Your task to perform on an android device: turn pop-ups on in chrome Image 0: 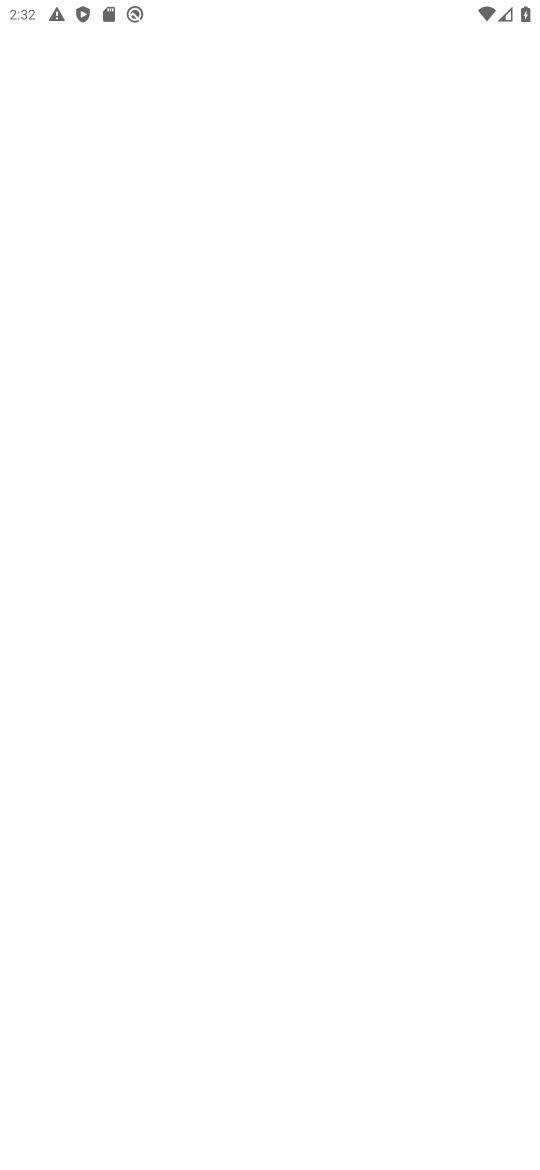
Step 0: press back button
Your task to perform on an android device: turn pop-ups on in chrome Image 1: 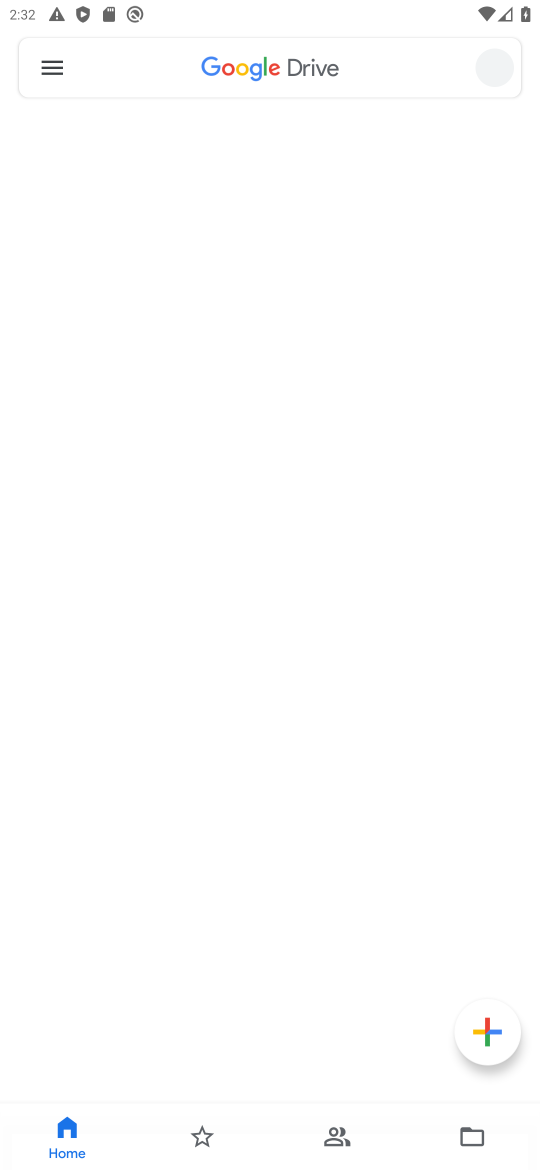
Step 1: press home button
Your task to perform on an android device: turn pop-ups on in chrome Image 2: 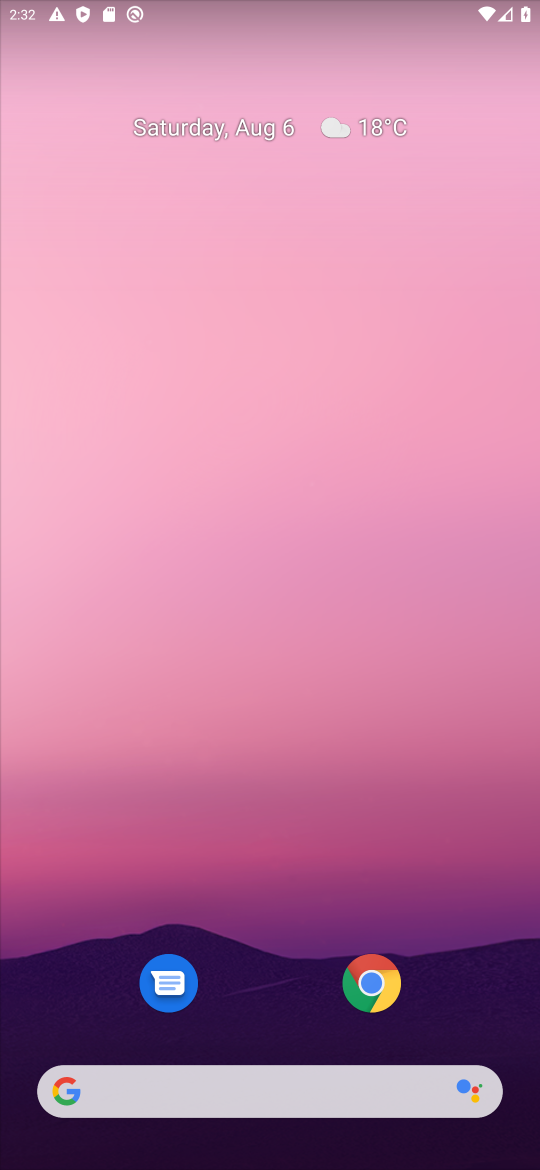
Step 2: click (379, 999)
Your task to perform on an android device: turn pop-ups on in chrome Image 3: 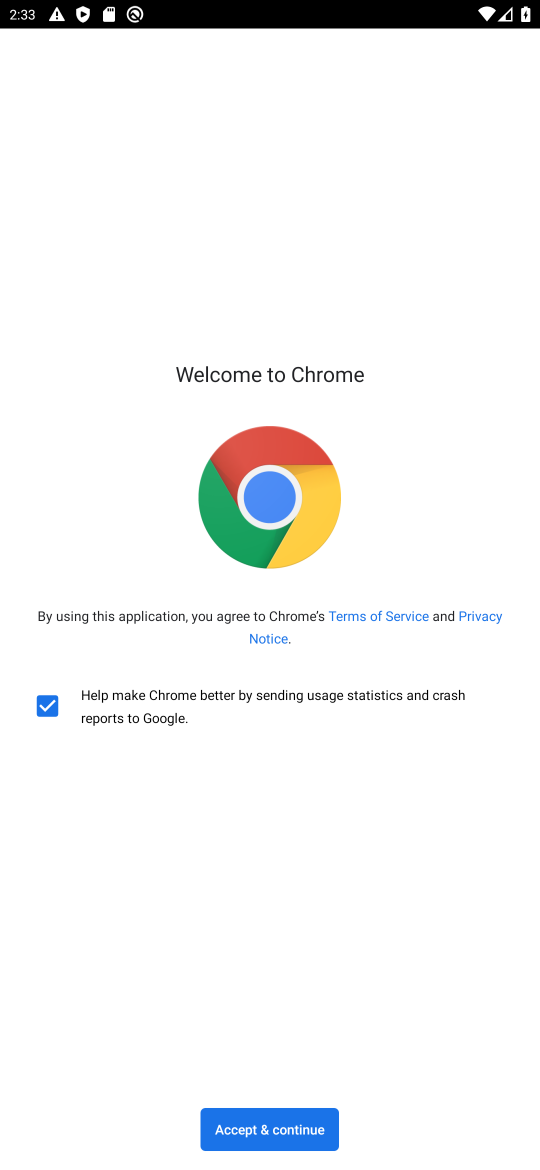
Step 3: click (322, 1139)
Your task to perform on an android device: turn pop-ups on in chrome Image 4: 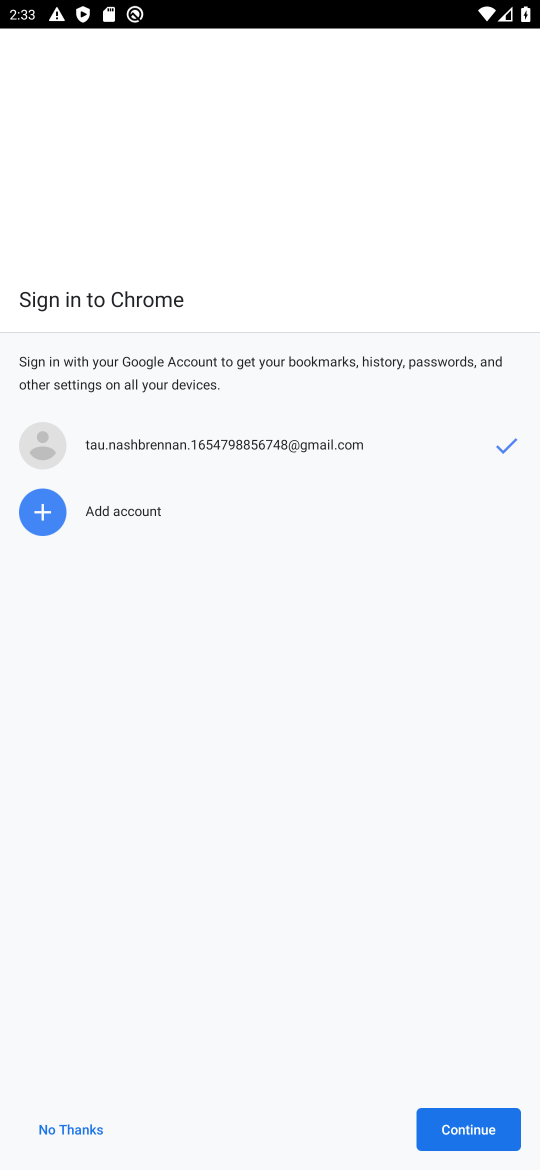
Step 4: click (513, 1113)
Your task to perform on an android device: turn pop-ups on in chrome Image 5: 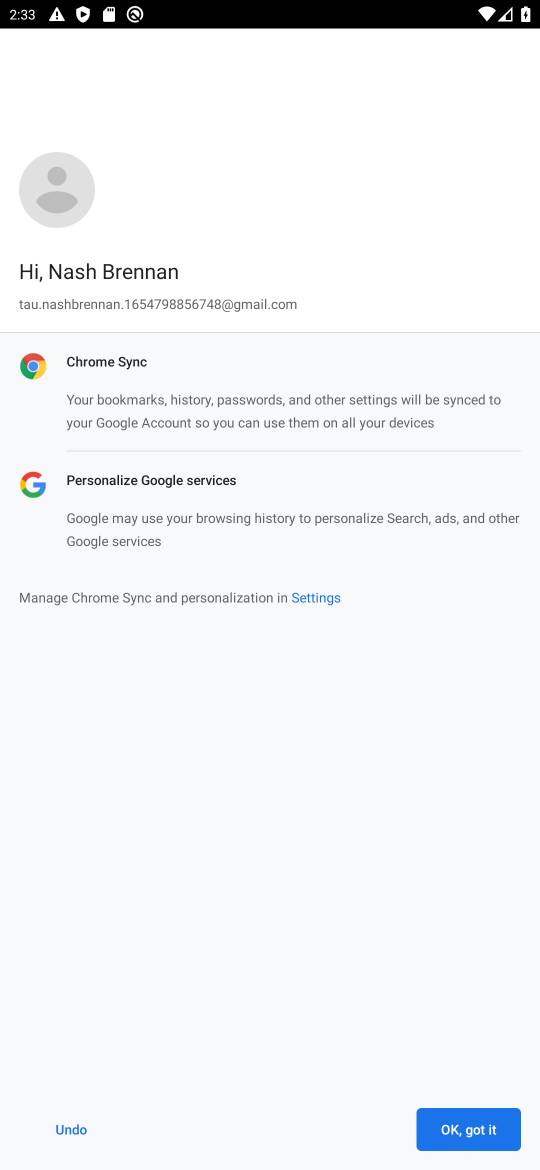
Step 5: click (497, 1113)
Your task to perform on an android device: turn pop-ups on in chrome Image 6: 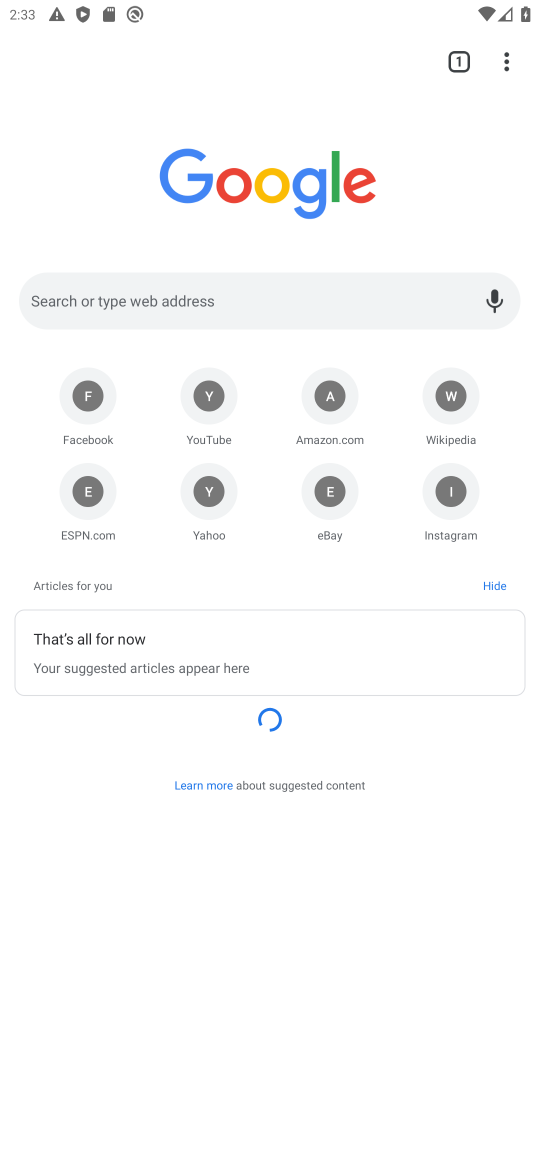
Step 6: drag from (516, 61) to (343, 525)
Your task to perform on an android device: turn pop-ups on in chrome Image 7: 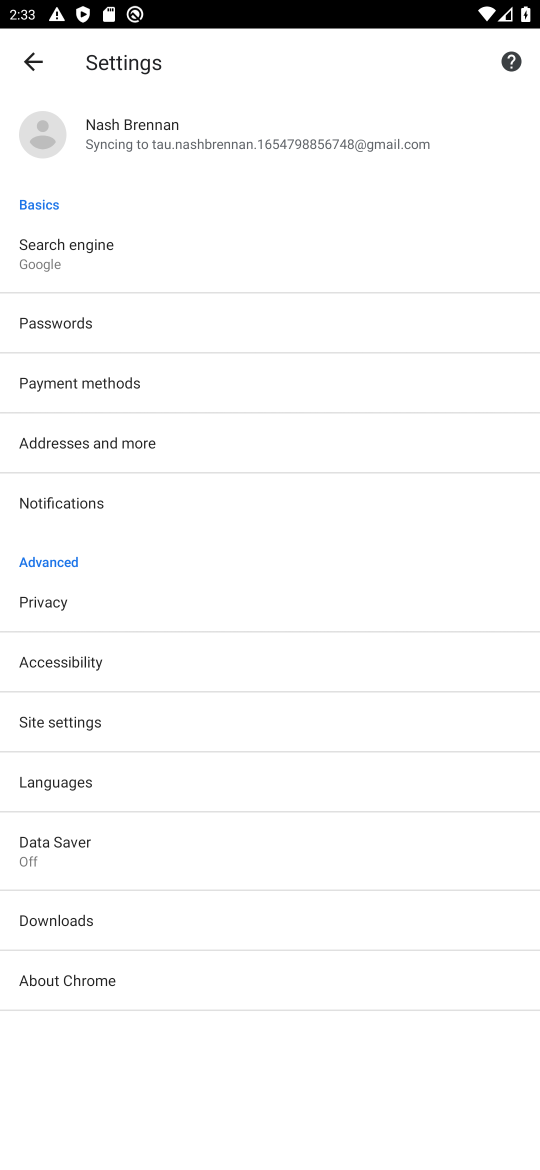
Step 7: click (131, 718)
Your task to perform on an android device: turn pop-ups on in chrome Image 8: 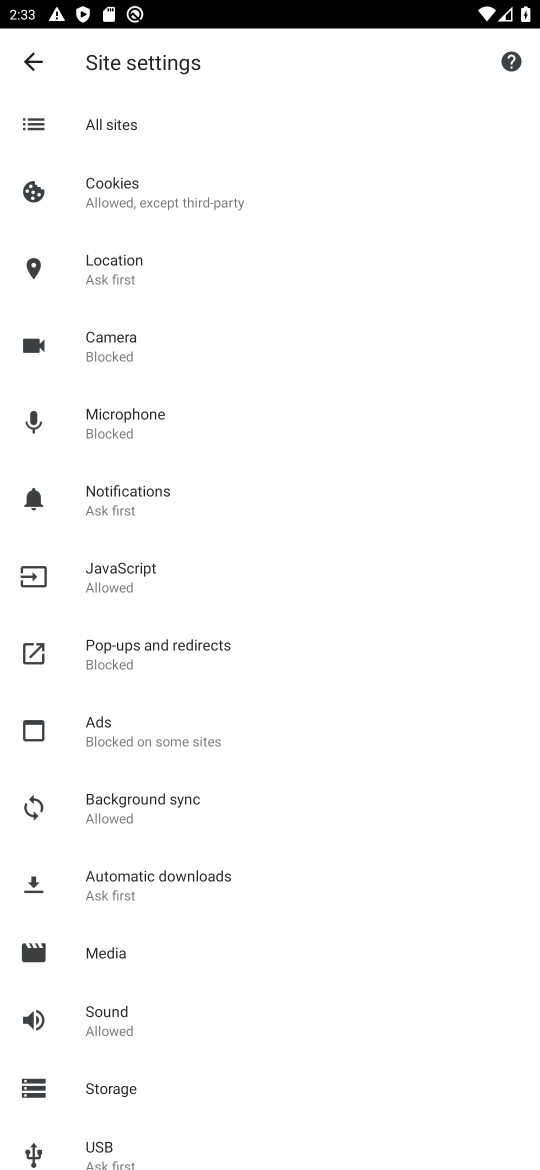
Step 8: click (203, 650)
Your task to perform on an android device: turn pop-ups on in chrome Image 9: 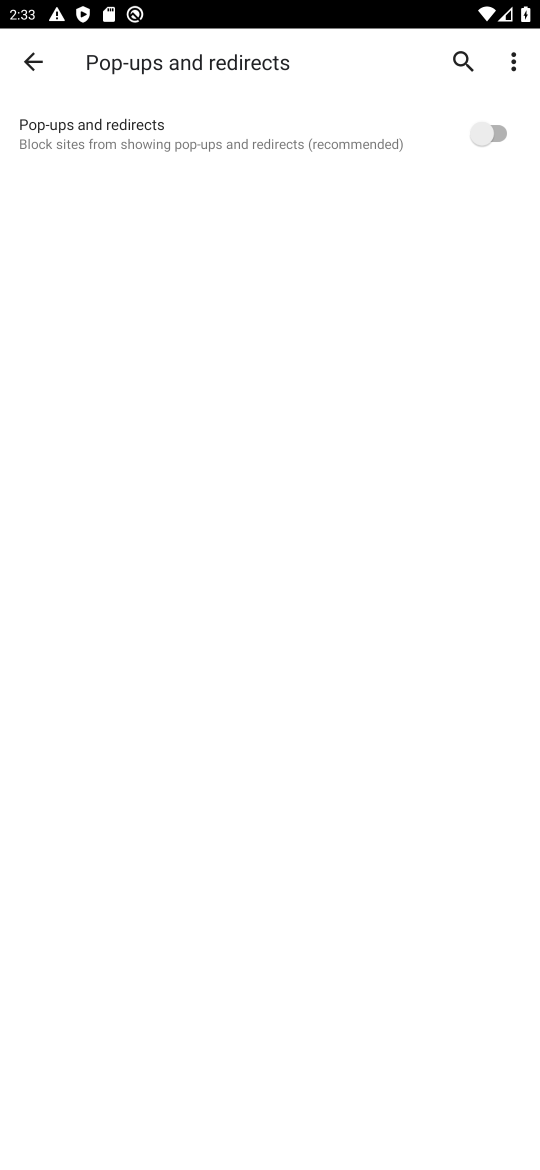
Step 9: click (491, 142)
Your task to perform on an android device: turn pop-ups on in chrome Image 10: 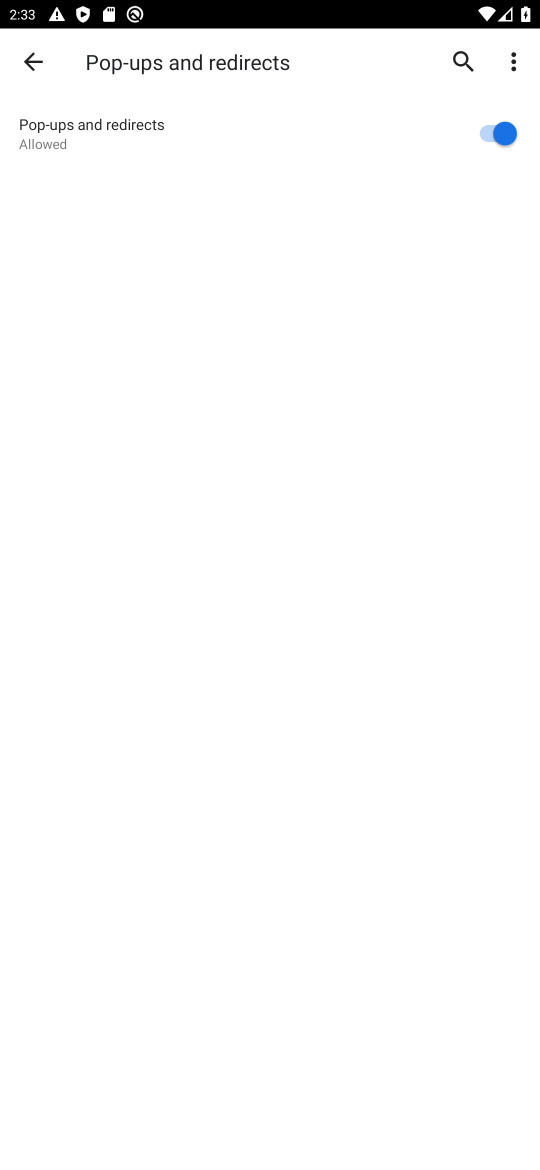
Step 10: task complete